Your task to perform on an android device: Do I have any events this weekend? Image 0: 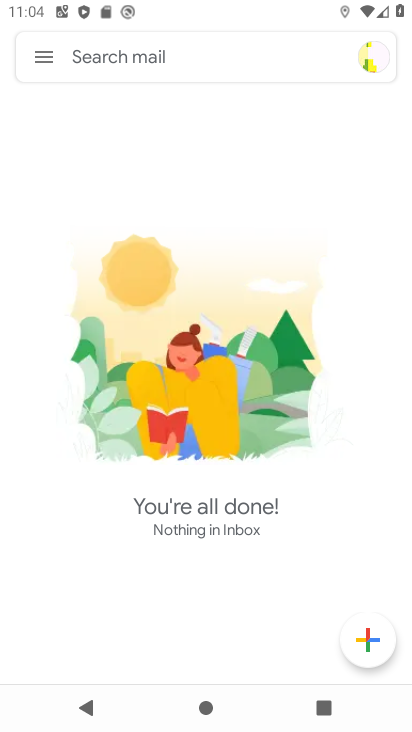
Step 0: press home button
Your task to perform on an android device: Do I have any events this weekend? Image 1: 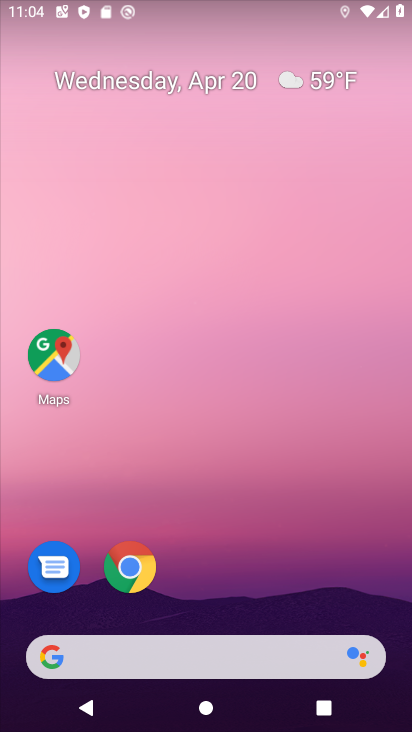
Step 1: drag from (260, 599) to (153, 248)
Your task to perform on an android device: Do I have any events this weekend? Image 2: 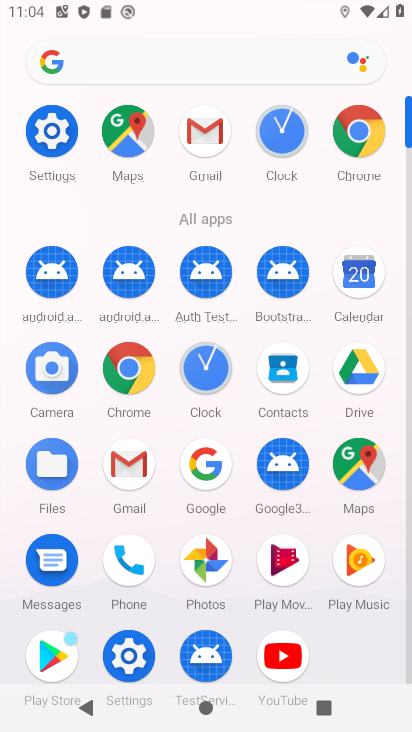
Step 2: click (361, 281)
Your task to perform on an android device: Do I have any events this weekend? Image 3: 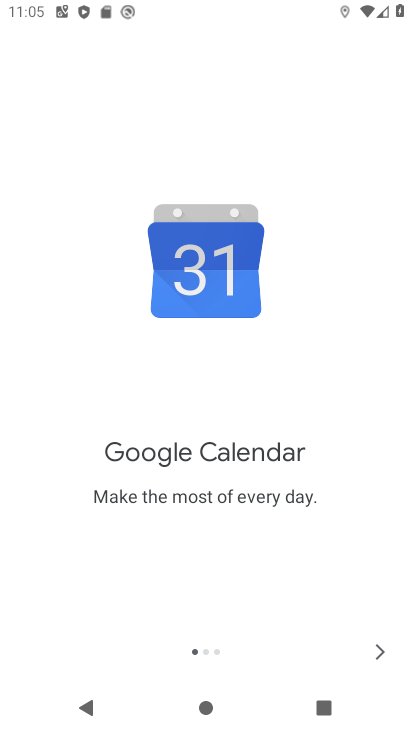
Step 3: click (377, 656)
Your task to perform on an android device: Do I have any events this weekend? Image 4: 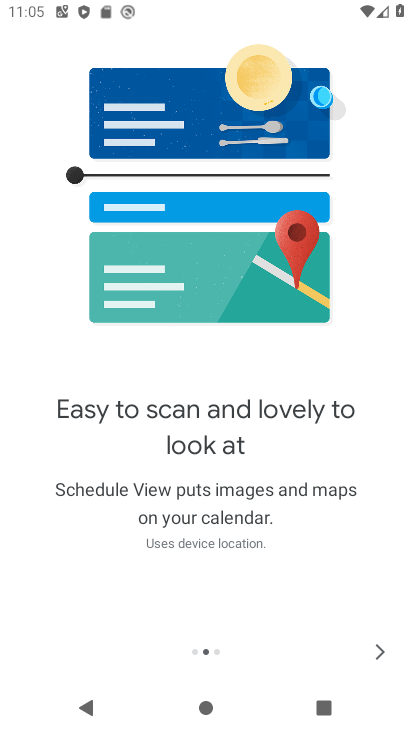
Step 4: click (377, 656)
Your task to perform on an android device: Do I have any events this weekend? Image 5: 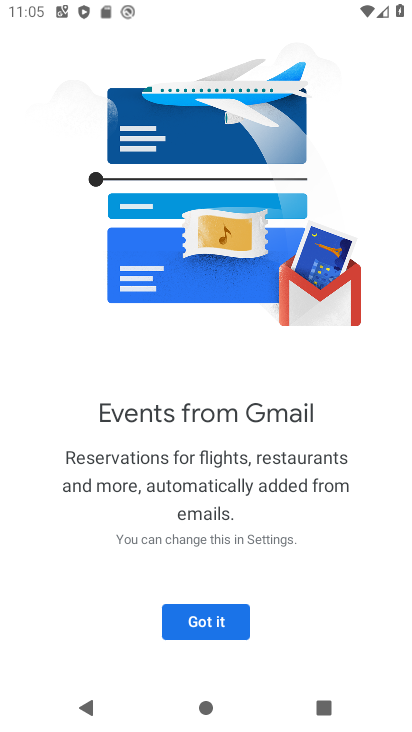
Step 5: click (211, 624)
Your task to perform on an android device: Do I have any events this weekend? Image 6: 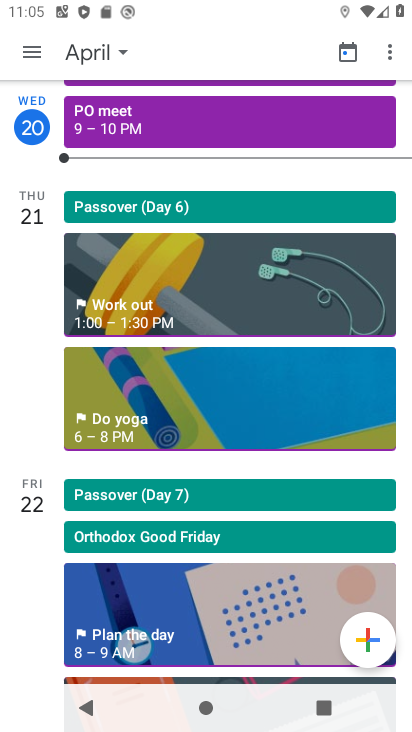
Step 6: click (75, 62)
Your task to perform on an android device: Do I have any events this weekend? Image 7: 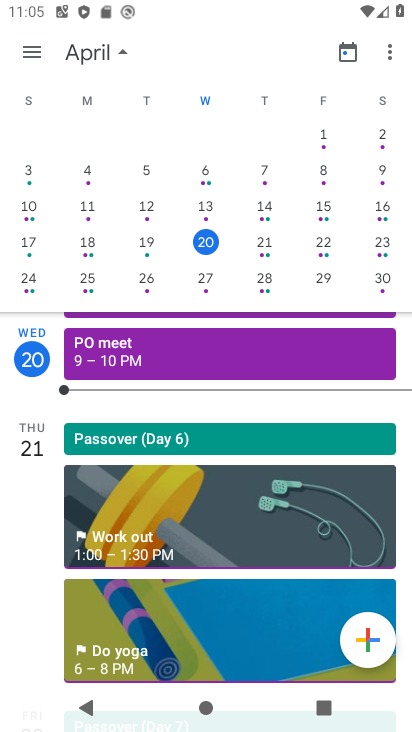
Step 7: click (385, 247)
Your task to perform on an android device: Do I have any events this weekend? Image 8: 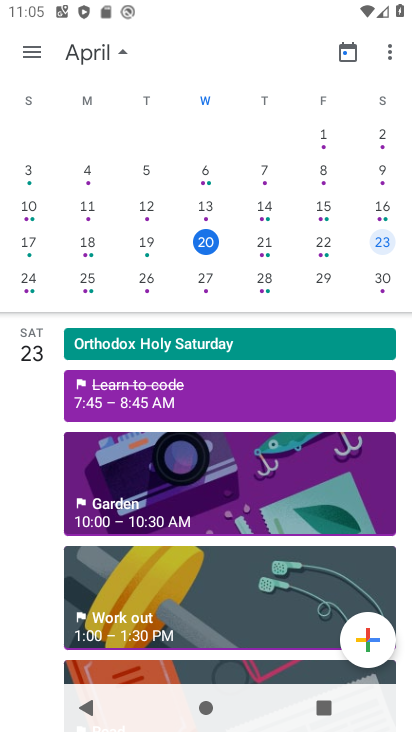
Step 8: click (27, 281)
Your task to perform on an android device: Do I have any events this weekend? Image 9: 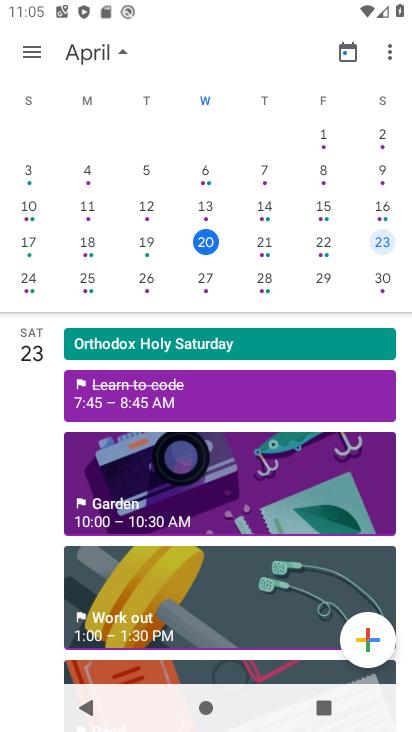
Step 9: click (35, 284)
Your task to perform on an android device: Do I have any events this weekend? Image 10: 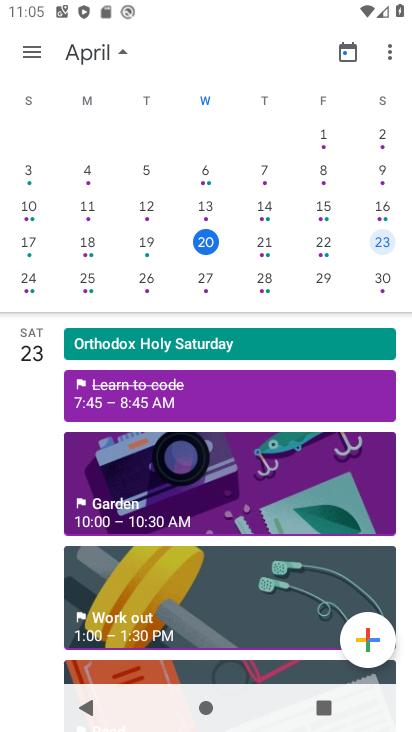
Step 10: click (37, 282)
Your task to perform on an android device: Do I have any events this weekend? Image 11: 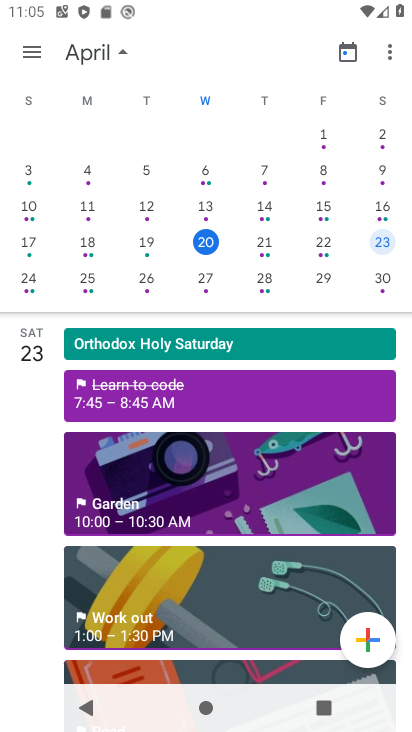
Step 11: click (37, 282)
Your task to perform on an android device: Do I have any events this weekend? Image 12: 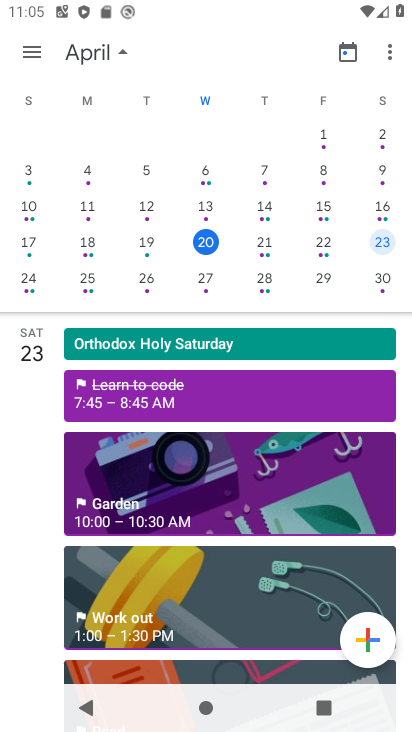
Step 12: click (32, 285)
Your task to perform on an android device: Do I have any events this weekend? Image 13: 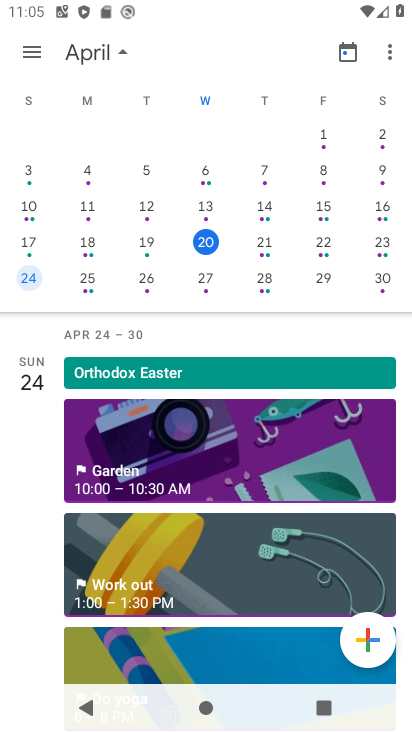
Step 13: task complete